Your task to perform on an android device: Open Google Chrome and click the shortcut for Amazon.com Image 0: 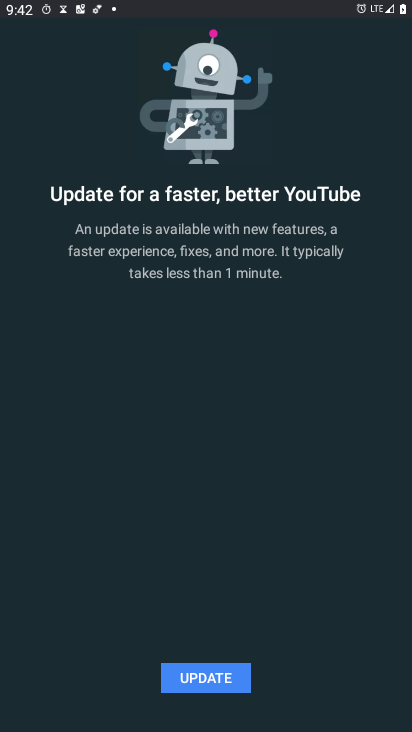
Step 0: drag from (311, 671) to (305, 199)
Your task to perform on an android device: Open Google Chrome and click the shortcut for Amazon.com Image 1: 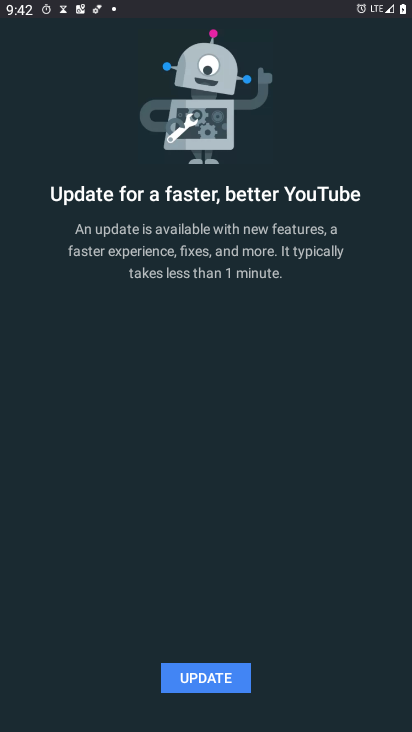
Step 1: press back button
Your task to perform on an android device: Open Google Chrome and click the shortcut for Amazon.com Image 2: 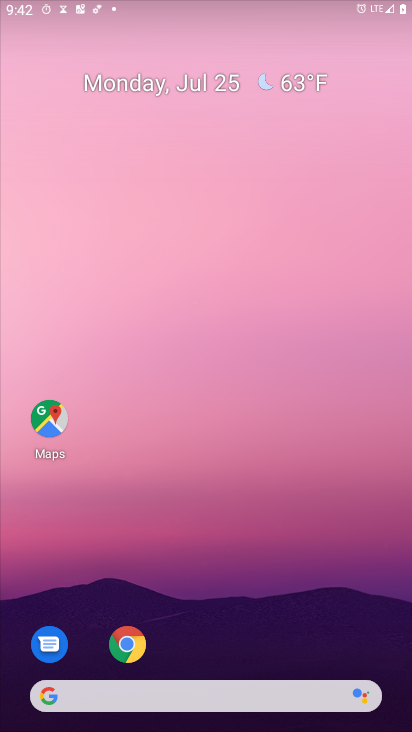
Step 2: drag from (275, 695) to (91, 67)
Your task to perform on an android device: Open Google Chrome and click the shortcut for Amazon.com Image 3: 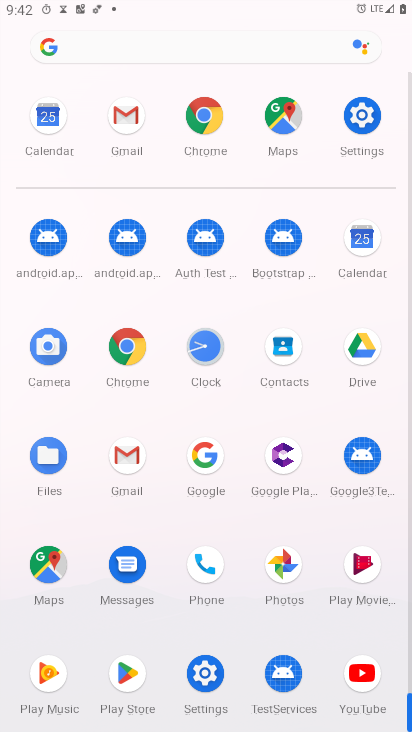
Step 3: click (121, 352)
Your task to perform on an android device: Open Google Chrome and click the shortcut for Amazon.com Image 4: 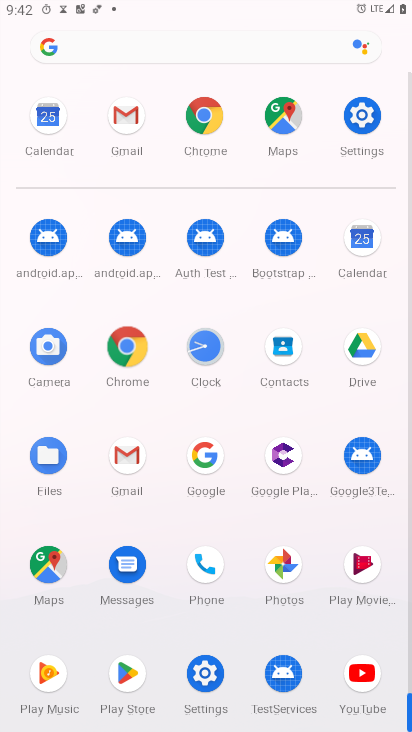
Step 4: click (118, 352)
Your task to perform on an android device: Open Google Chrome and click the shortcut for Amazon.com Image 5: 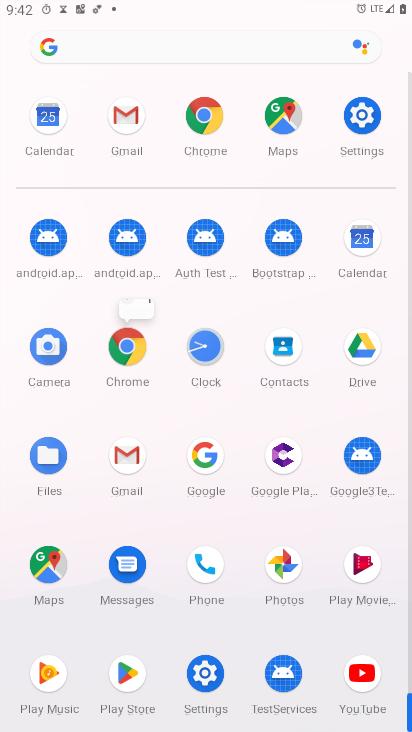
Step 5: click (120, 350)
Your task to perform on an android device: Open Google Chrome and click the shortcut for Amazon.com Image 6: 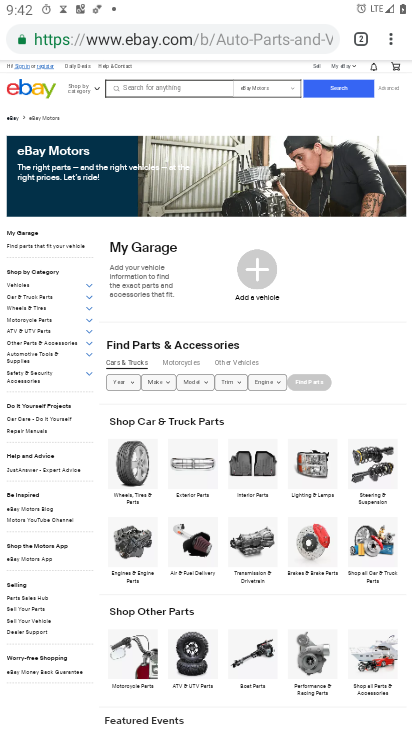
Step 6: click (389, 42)
Your task to perform on an android device: Open Google Chrome and click the shortcut for Amazon.com Image 7: 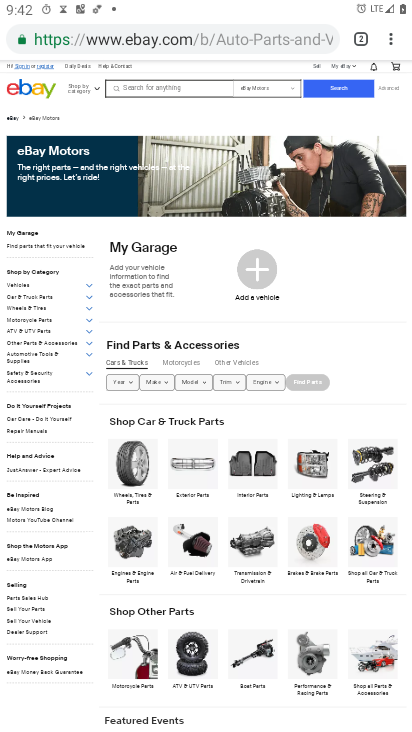
Step 7: click (390, 37)
Your task to perform on an android device: Open Google Chrome and click the shortcut for Amazon.com Image 8: 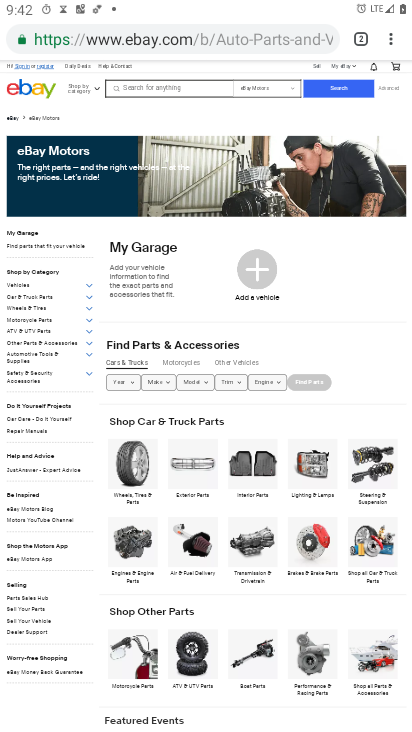
Step 8: drag from (381, 44) to (241, 79)
Your task to perform on an android device: Open Google Chrome and click the shortcut for Amazon.com Image 9: 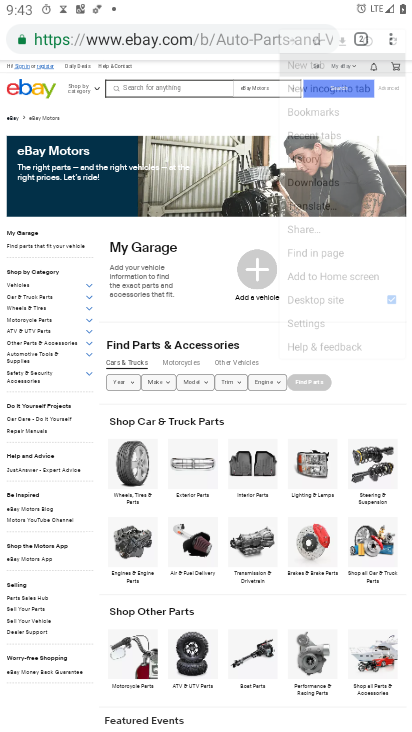
Step 9: click (243, 80)
Your task to perform on an android device: Open Google Chrome and click the shortcut for Amazon.com Image 10: 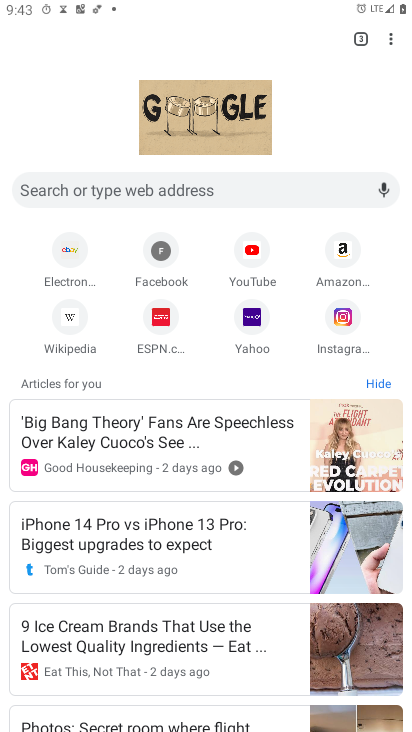
Step 10: click (333, 262)
Your task to perform on an android device: Open Google Chrome and click the shortcut for Amazon.com Image 11: 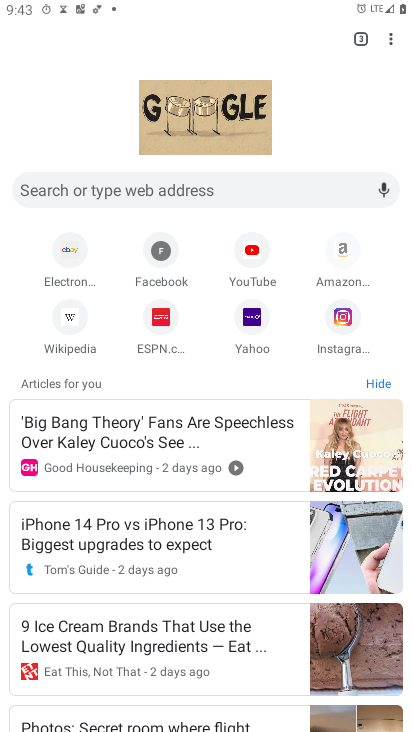
Step 11: click (345, 259)
Your task to perform on an android device: Open Google Chrome and click the shortcut for Amazon.com Image 12: 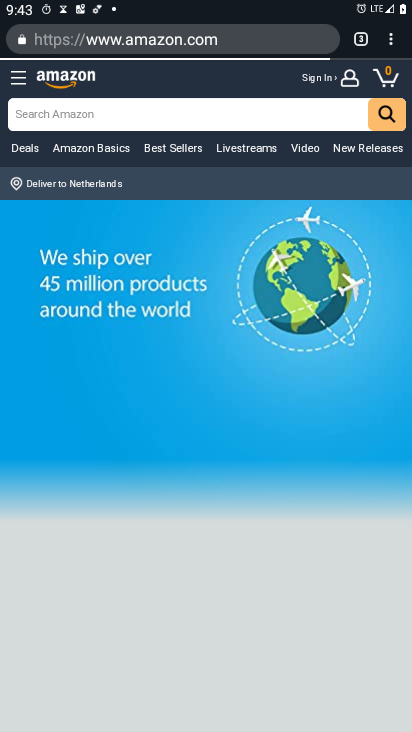
Step 12: task complete